Your task to perform on an android device: Open ESPN.com Image 0: 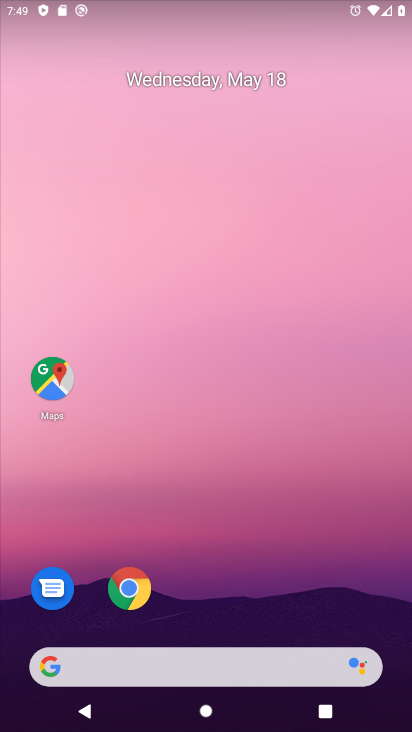
Step 0: click (129, 598)
Your task to perform on an android device: Open ESPN.com Image 1: 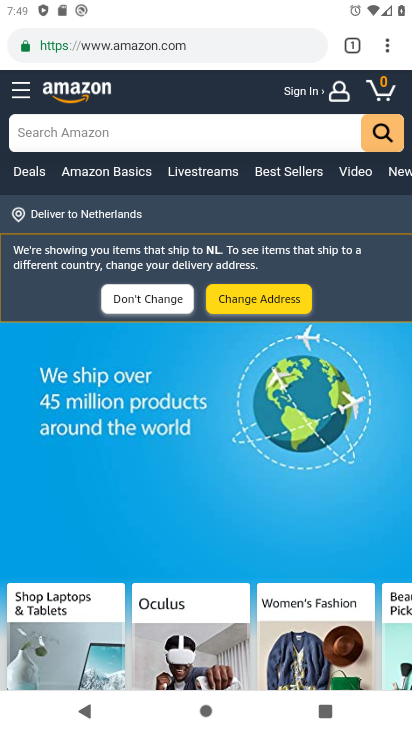
Step 1: click (191, 43)
Your task to perform on an android device: Open ESPN.com Image 2: 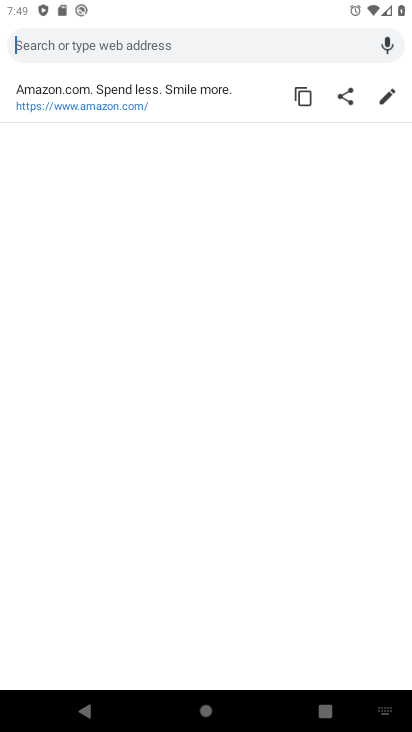
Step 2: type "ESPN.com"
Your task to perform on an android device: Open ESPN.com Image 3: 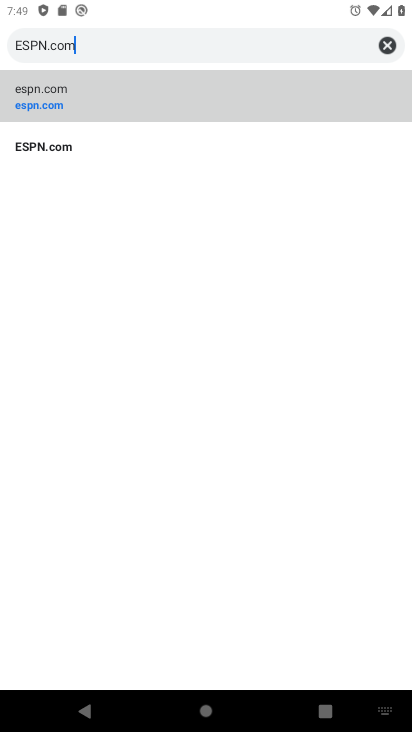
Step 3: click (84, 150)
Your task to perform on an android device: Open ESPN.com Image 4: 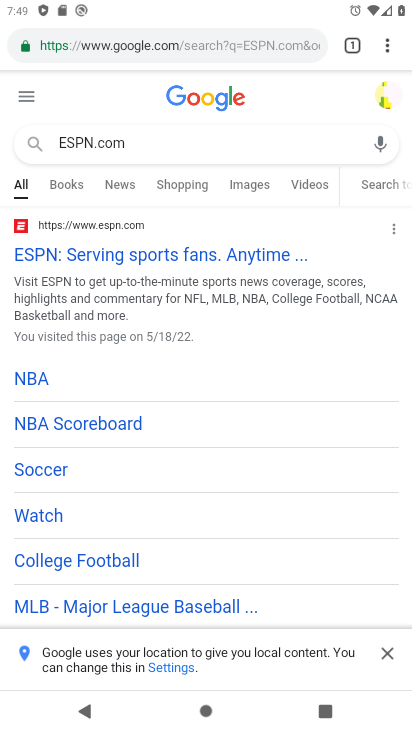
Step 4: click (385, 653)
Your task to perform on an android device: Open ESPN.com Image 5: 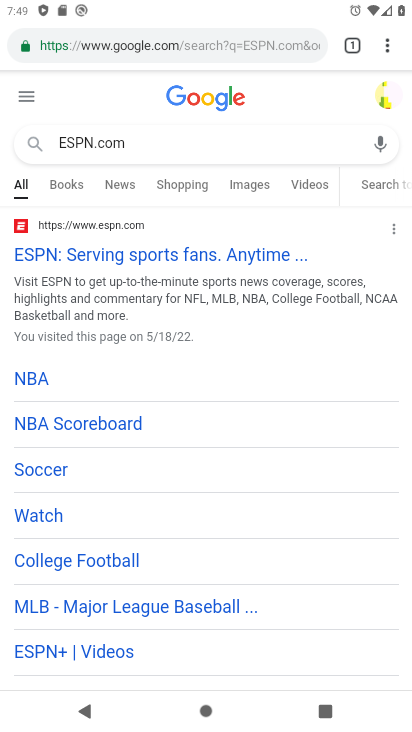
Step 5: task complete